Your task to perform on an android device: Show me productivity apps on the Play Store Image 0: 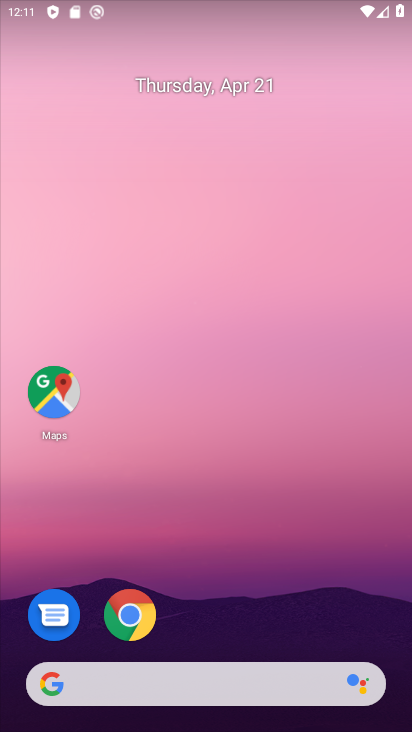
Step 0: drag from (184, 605) to (217, 210)
Your task to perform on an android device: Show me productivity apps on the Play Store Image 1: 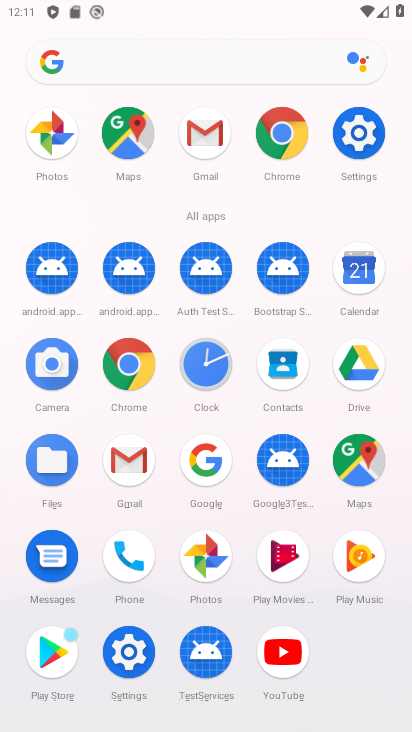
Step 1: click (47, 662)
Your task to perform on an android device: Show me productivity apps on the Play Store Image 2: 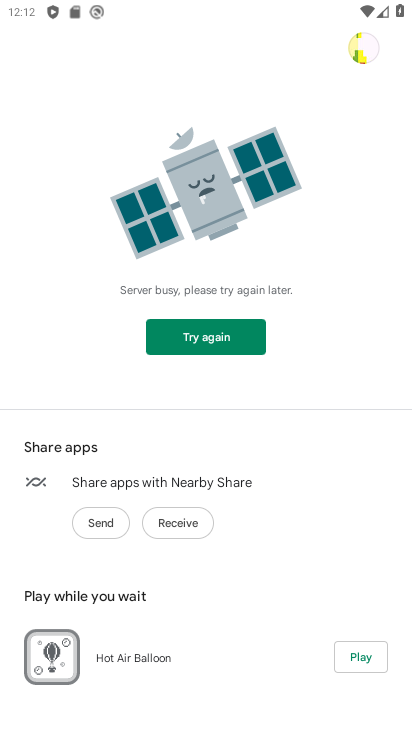
Step 2: click (214, 340)
Your task to perform on an android device: Show me productivity apps on the Play Store Image 3: 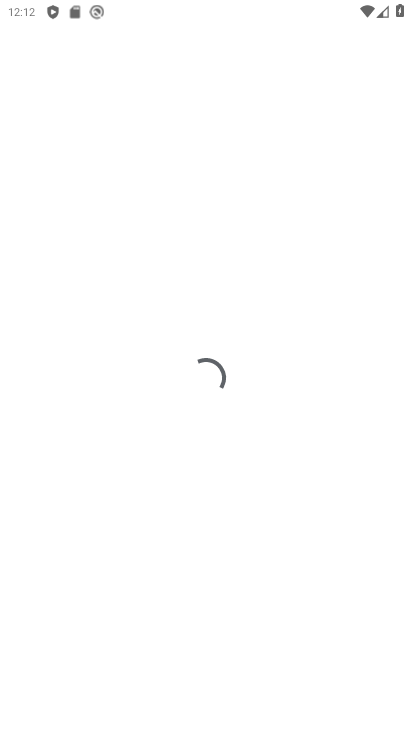
Step 3: click (214, 340)
Your task to perform on an android device: Show me productivity apps on the Play Store Image 4: 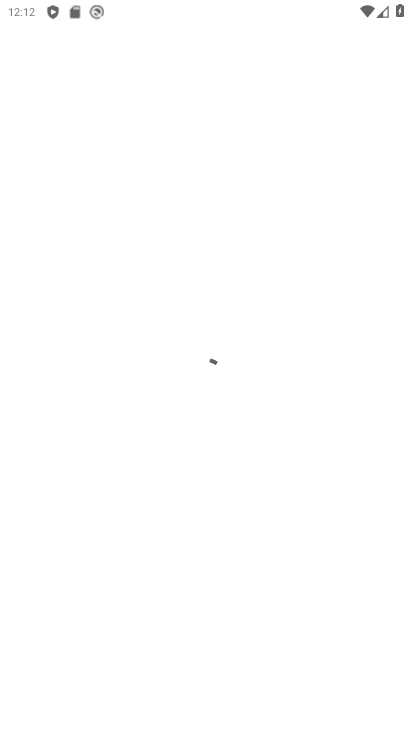
Step 4: click (214, 340)
Your task to perform on an android device: Show me productivity apps on the Play Store Image 5: 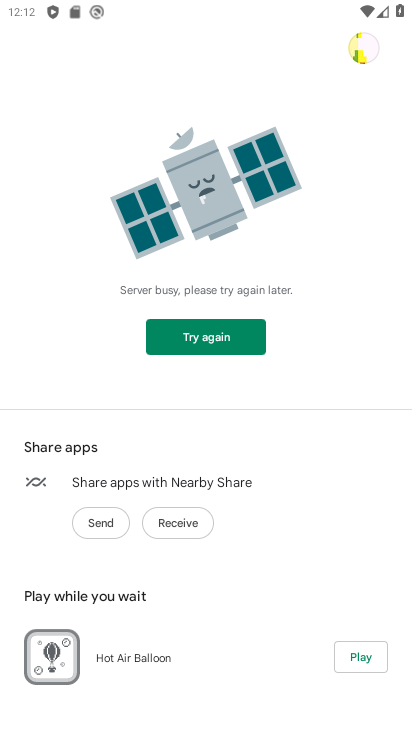
Step 5: task complete